Your task to perform on an android device: What's the weather going to be this weekend? Image 0: 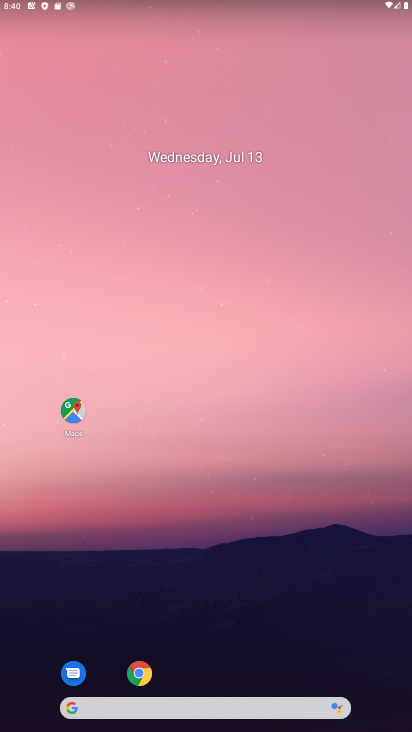
Step 0: drag from (253, 595) to (219, 149)
Your task to perform on an android device: What's the weather going to be this weekend? Image 1: 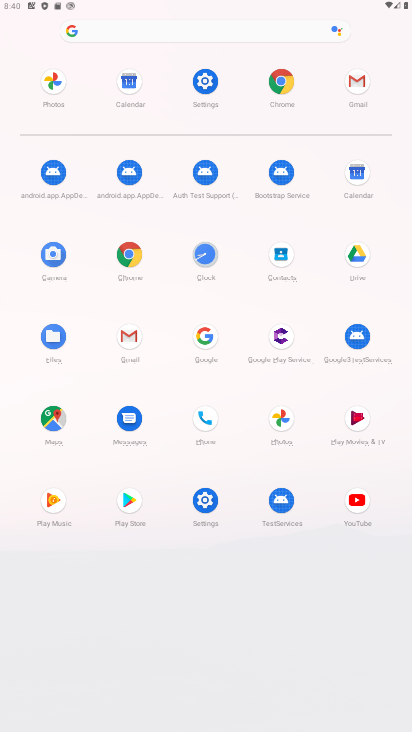
Step 1: click (288, 80)
Your task to perform on an android device: What's the weather going to be this weekend? Image 2: 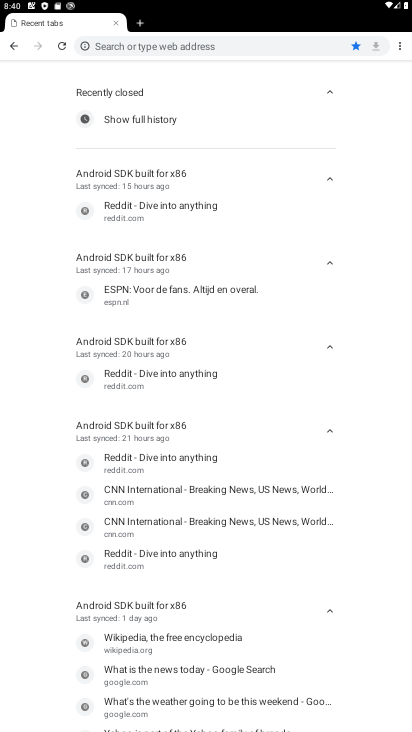
Step 2: click (213, 40)
Your task to perform on an android device: What's the weather going to be this weekend? Image 3: 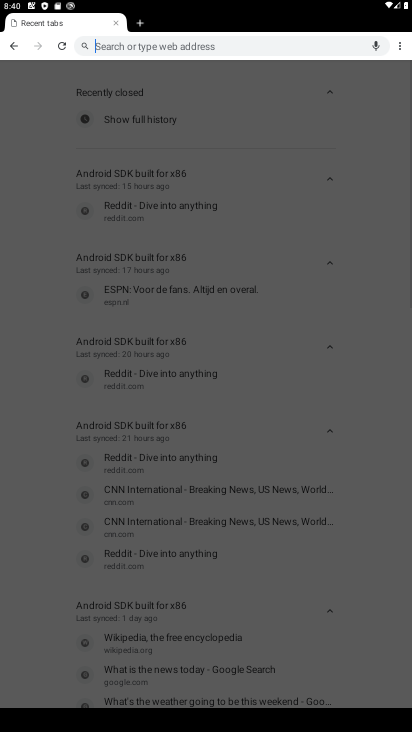
Step 3: type ""
Your task to perform on an android device: What's the weather going to be this weekend? Image 4: 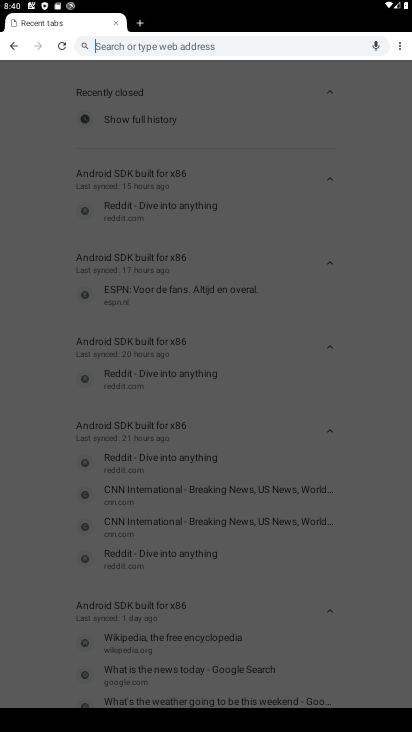
Step 4: type "weather"
Your task to perform on an android device: What's the weather going to be this weekend? Image 5: 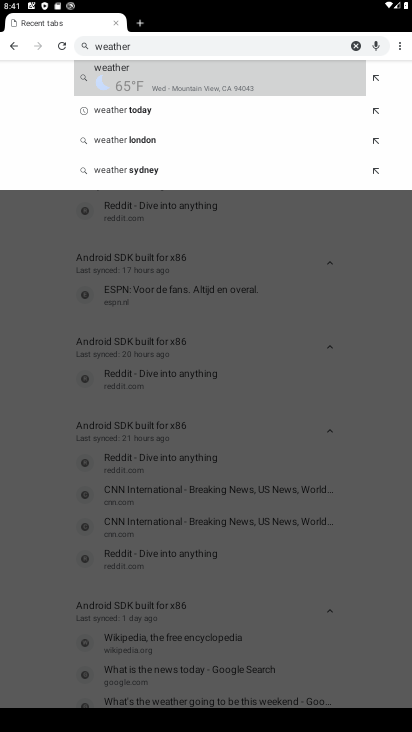
Step 5: click (263, 80)
Your task to perform on an android device: What's the weather going to be this weekend? Image 6: 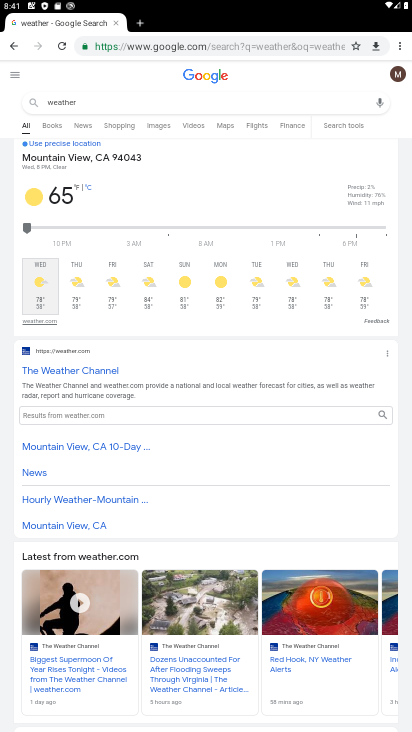
Step 6: click (146, 282)
Your task to perform on an android device: What's the weather going to be this weekend? Image 7: 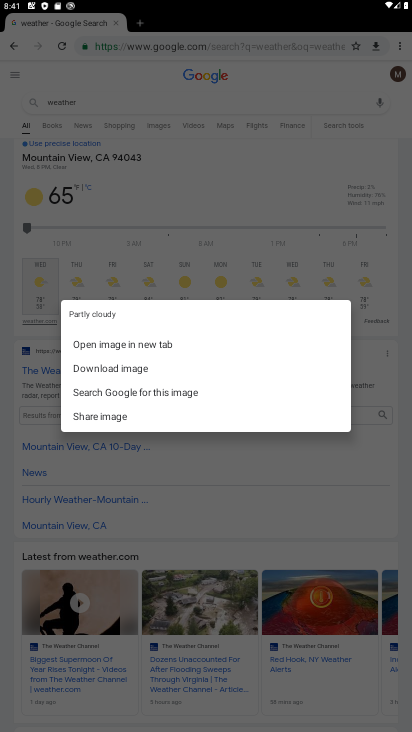
Step 7: click (175, 273)
Your task to perform on an android device: What's the weather going to be this weekend? Image 8: 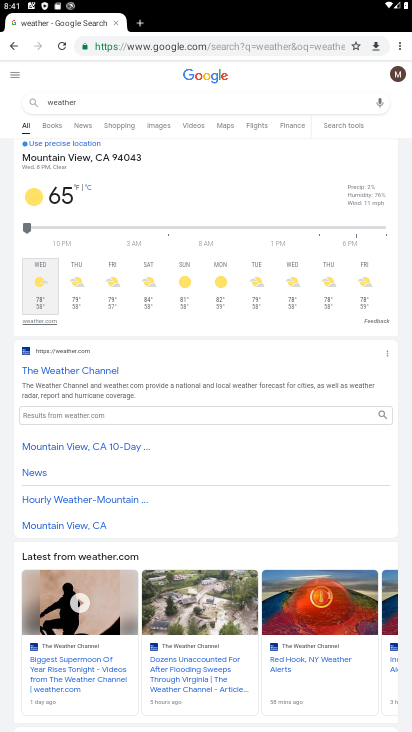
Step 8: click (152, 280)
Your task to perform on an android device: What's the weather going to be this weekend? Image 9: 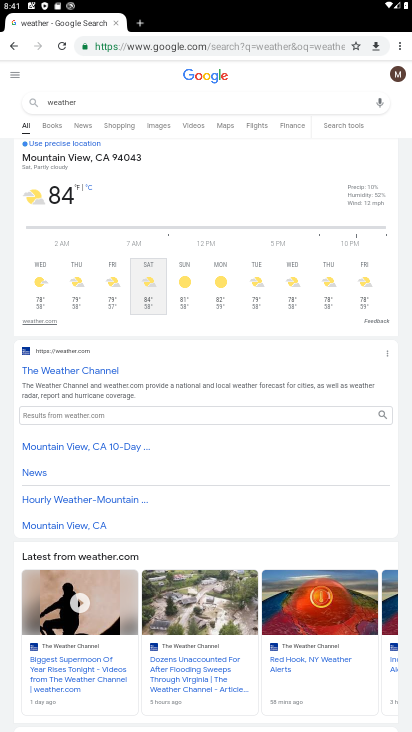
Step 9: task complete